Your task to perform on an android device: install app "Google News" Image 0: 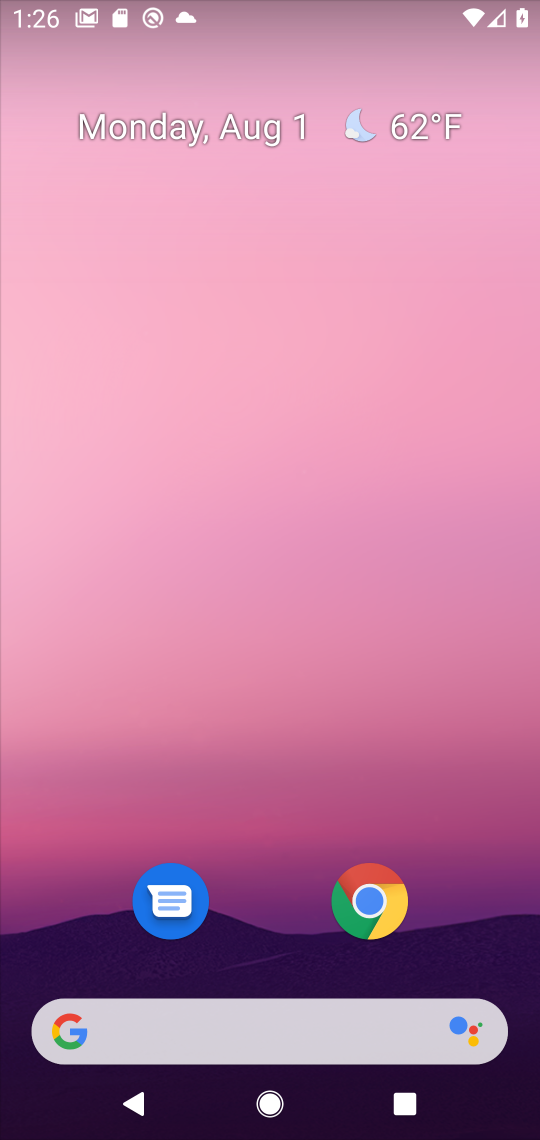
Step 0: drag from (256, 1017) to (229, 18)
Your task to perform on an android device: install app "Google News" Image 1: 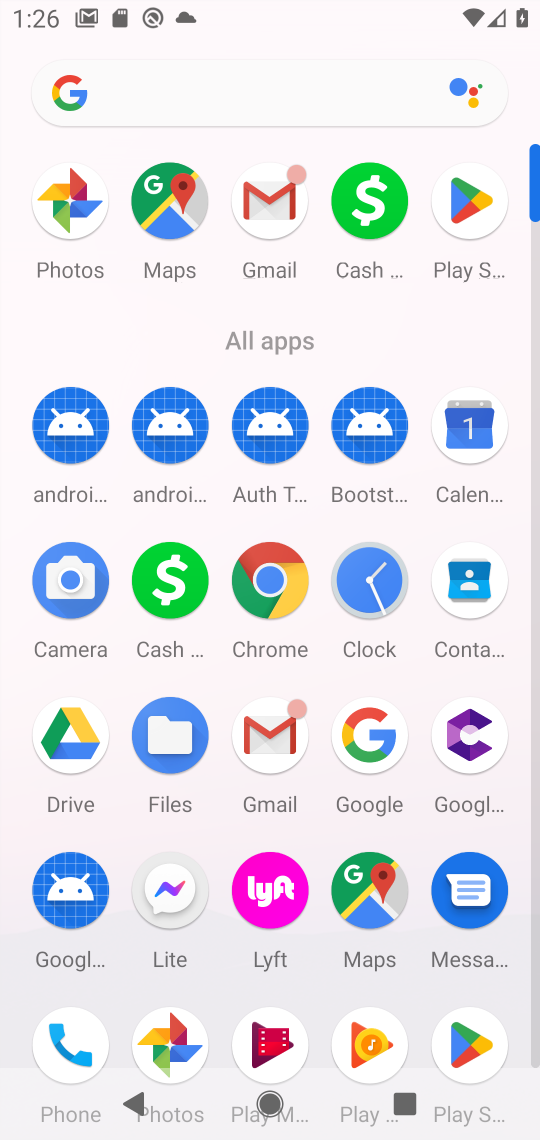
Step 1: click (476, 1039)
Your task to perform on an android device: install app "Google News" Image 2: 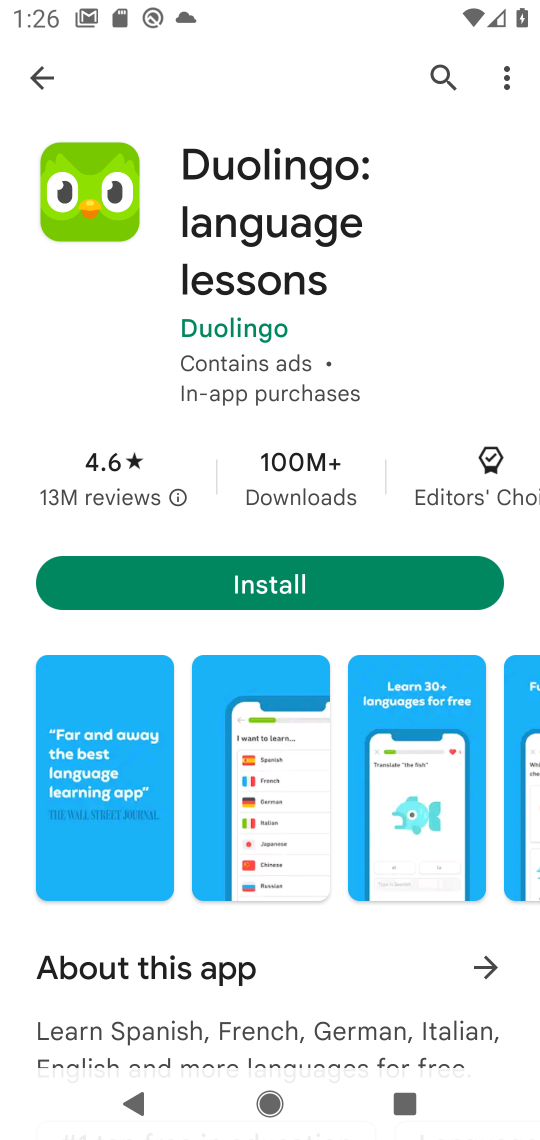
Step 2: click (433, 93)
Your task to perform on an android device: install app "Google News" Image 3: 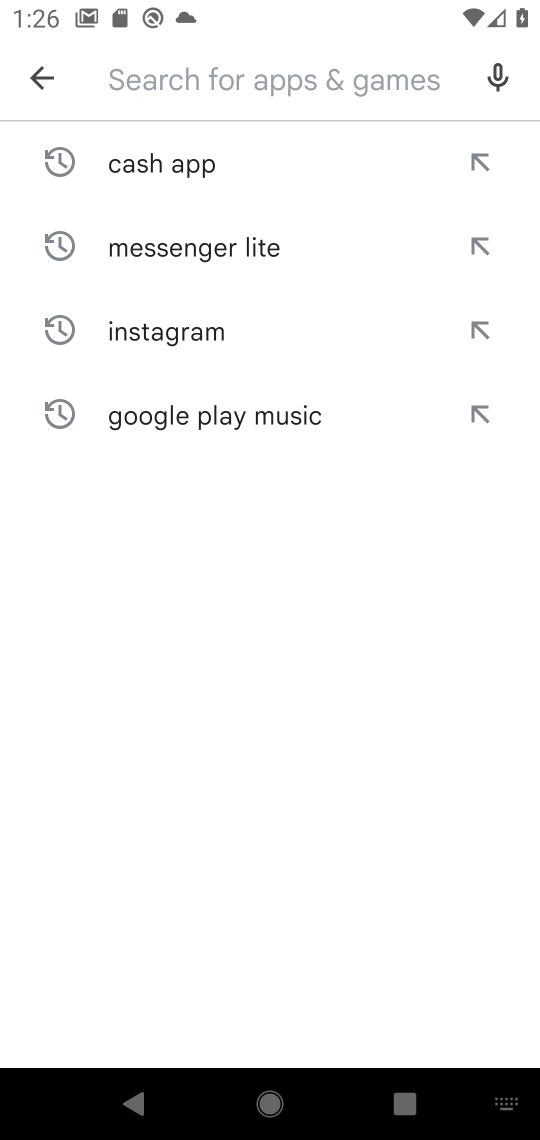
Step 3: type "google news"
Your task to perform on an android device: install app "Google News" Image 4: 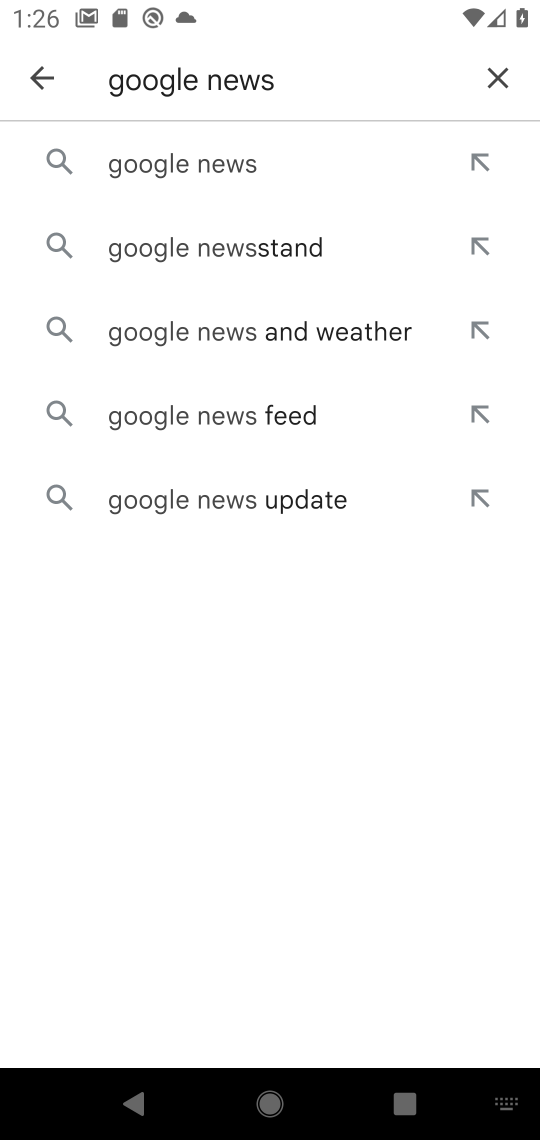
Step 4: click (192, 158)
Your task to perform on an android device: install app "Google News" Image 5: 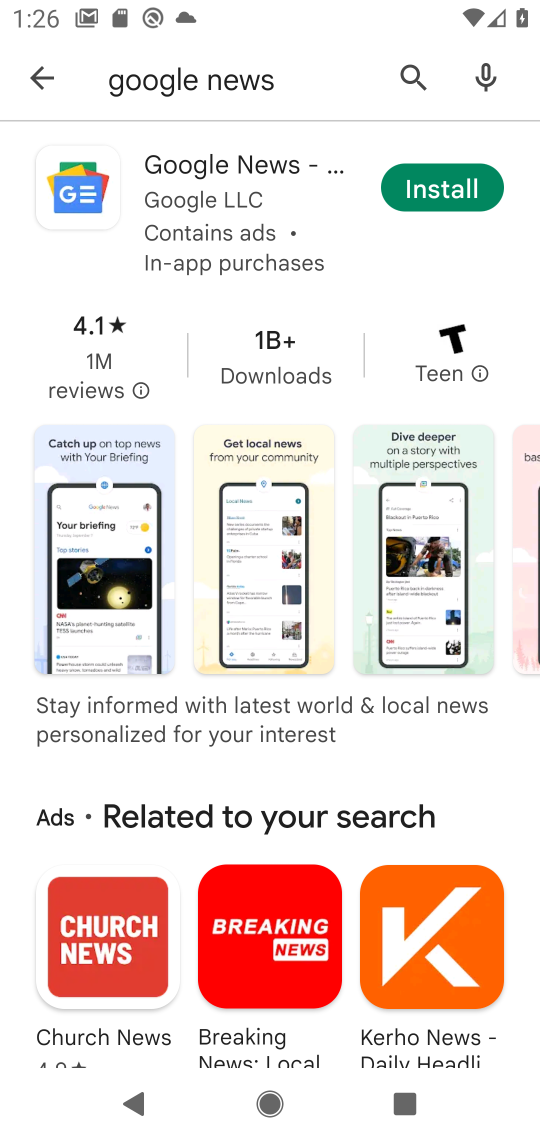
Step 5: click (447, 199)
Your task to perform on an android device: install app "Google News" Image 6: 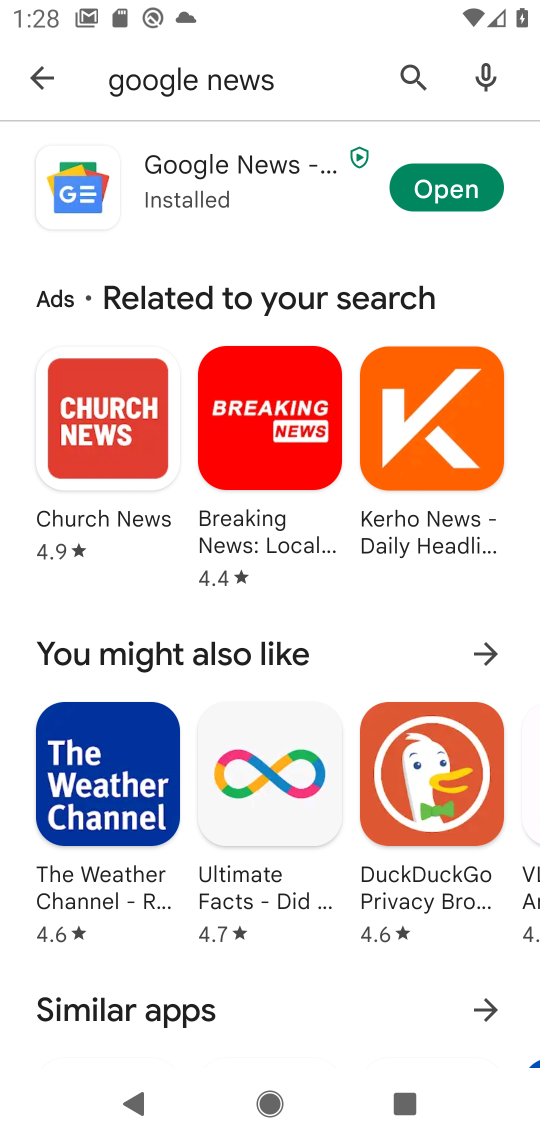
Step 6: task complete